Your task to perform on an android device: Do I have any events today? Image 0: 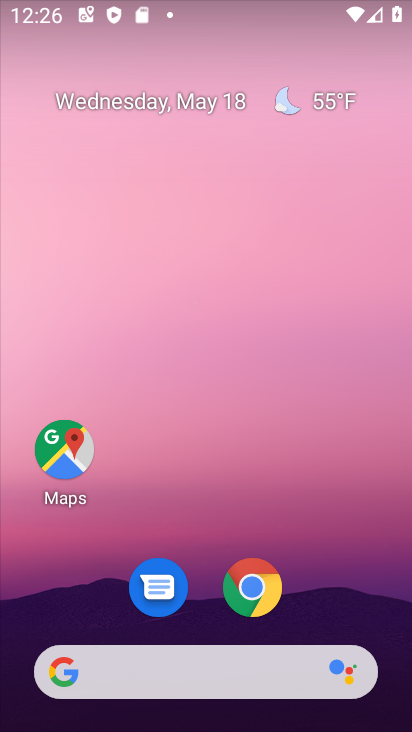
Step 0: click (280, 203)
Your task to perform on an android device: Do I have any events today? Image 1: 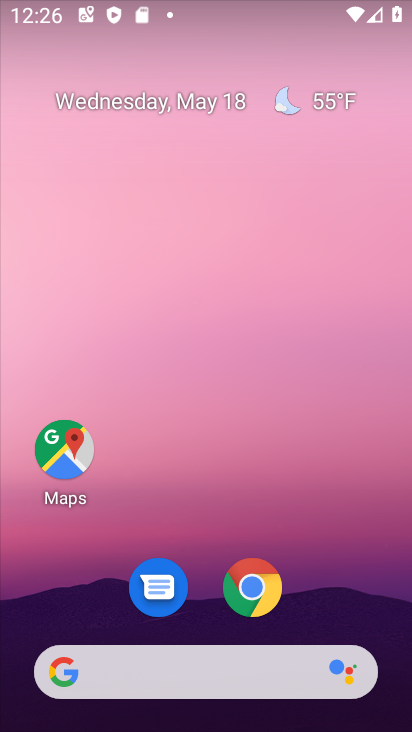
Step 1: drag from (289, 579) to (257, 185)
Your task to perform on an android device: Do I have any events today? Image 2: 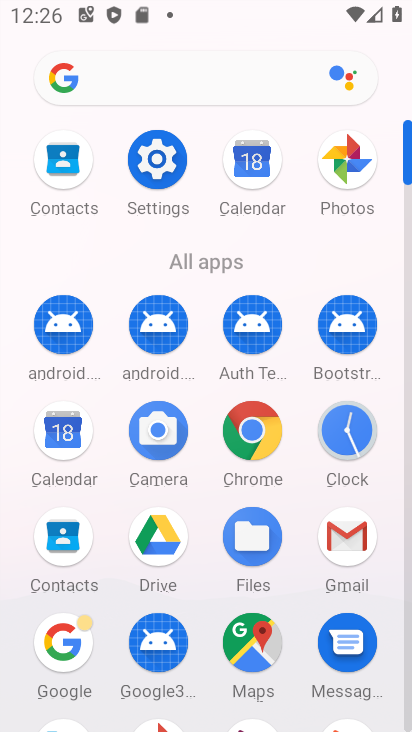
Step 2: click (77, 210)
Your task to perform on an android device: Do I have any events today? Image 3: 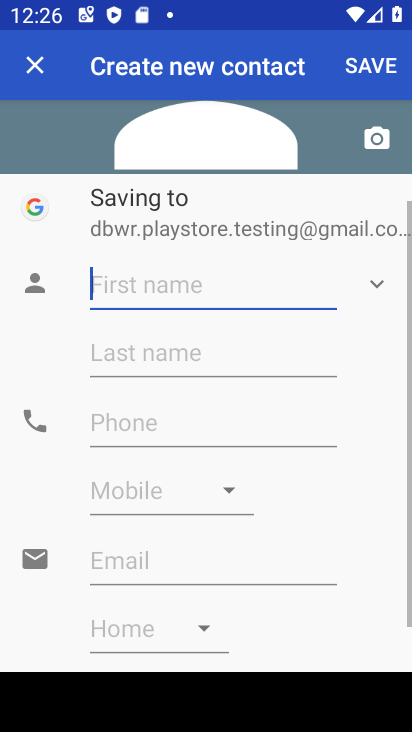
Step 3: press back button
Your task to perform on an android device: Do I have any events today? Image 4: 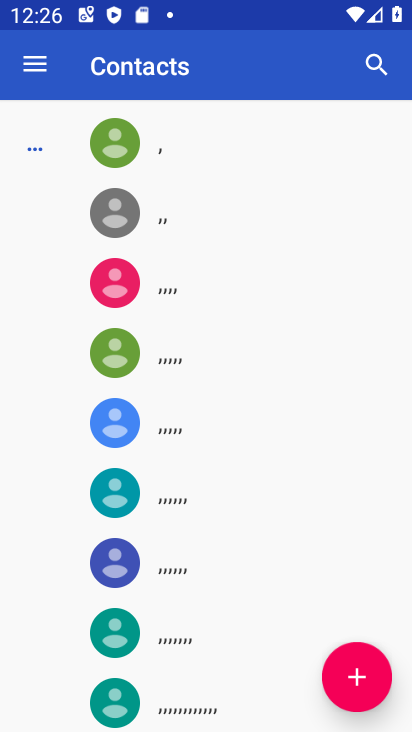
Step 4: press back button
Your task to perform on an android device: Do I have any events today? Image 5: 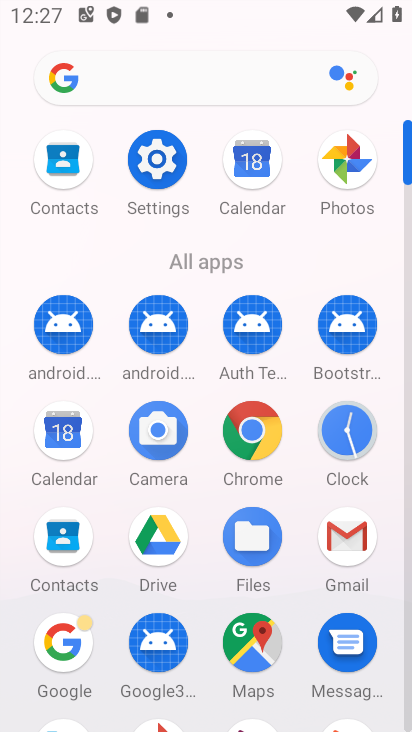
Step 5: click (59, 483)
Your task to perform on an android device: Do I have any events today? Image 6: 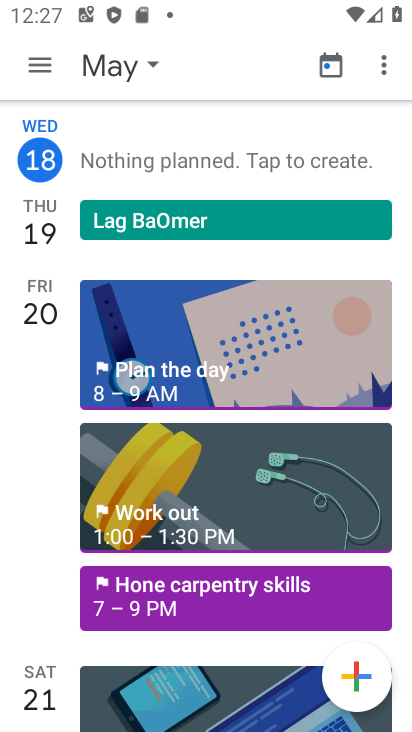
Step 6: task complete